Your task to perform on an android device: check the backup settings in the google photos Image 0: 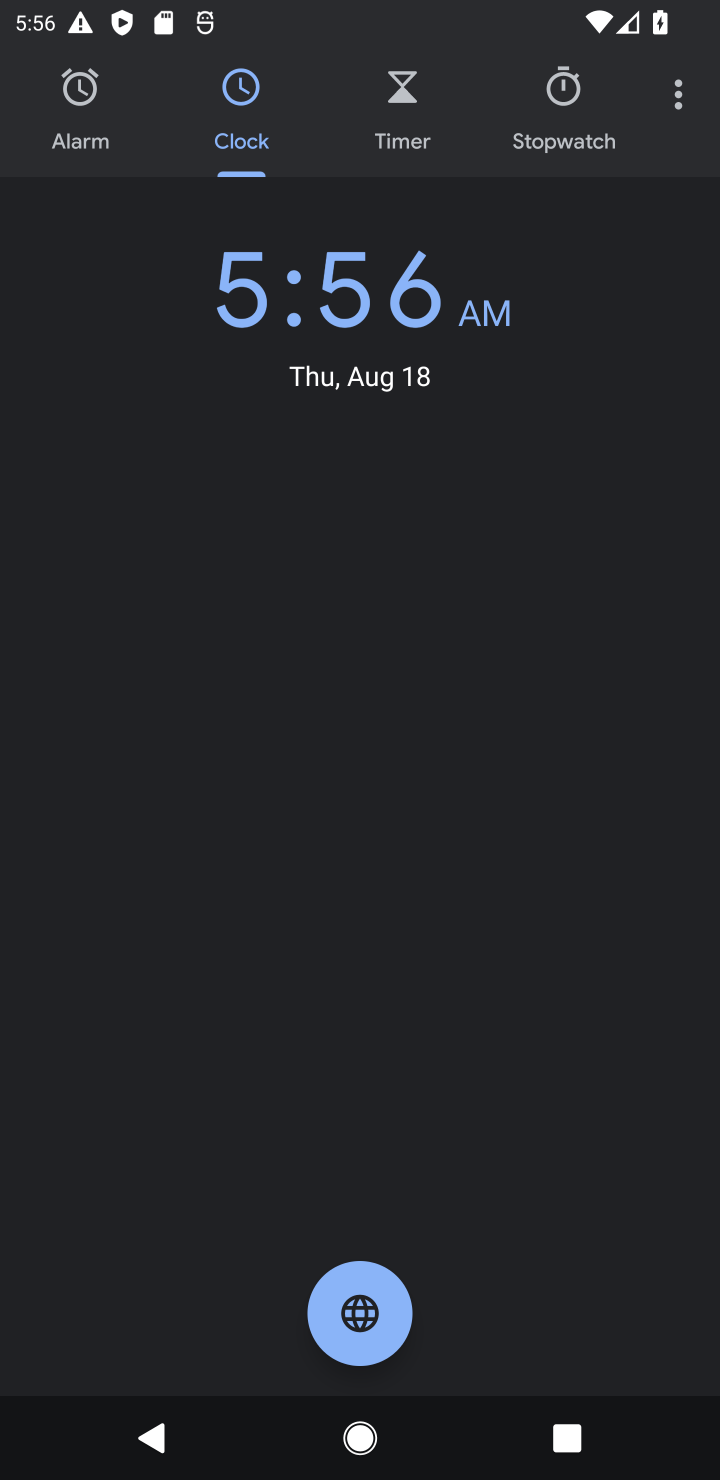
Step 0: press home button
Your task to perform on an android device: check the backup settings in the google photos Image 1: 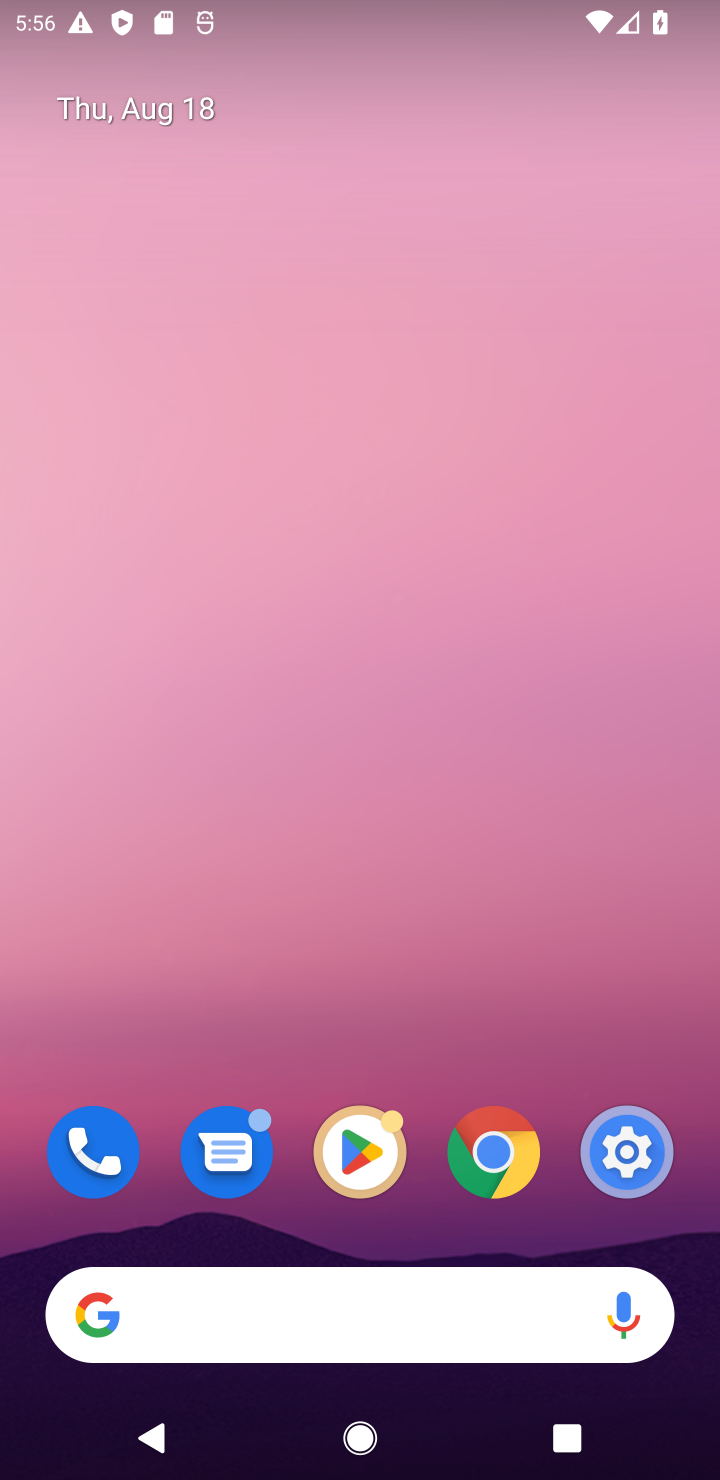
Step 1: drag from (575, 763) to (538, 49)
Your task to perform on an android device: check the backup settings in the google photos Image 2: 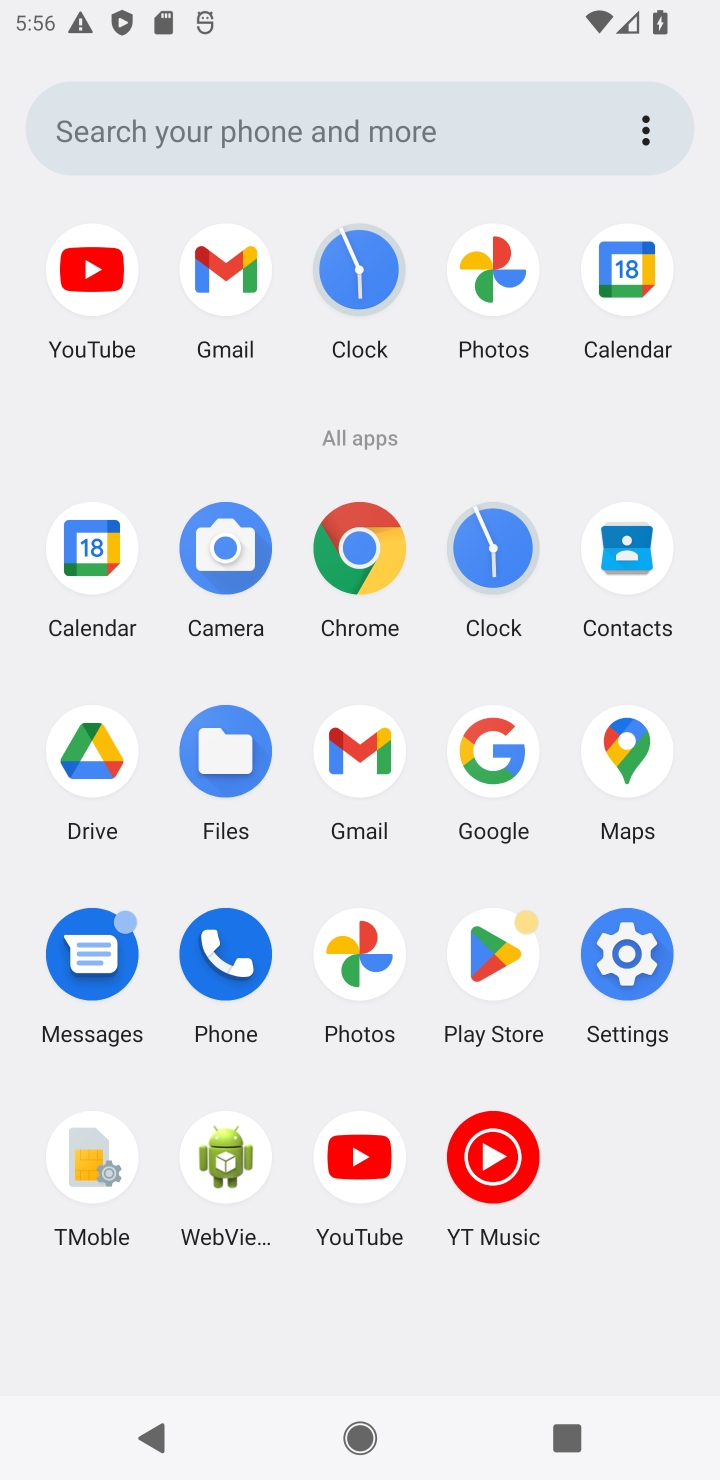
Step 2: click (365, 955)
Your task to perform on an android device: check the backup settings in the google photos Image 3: 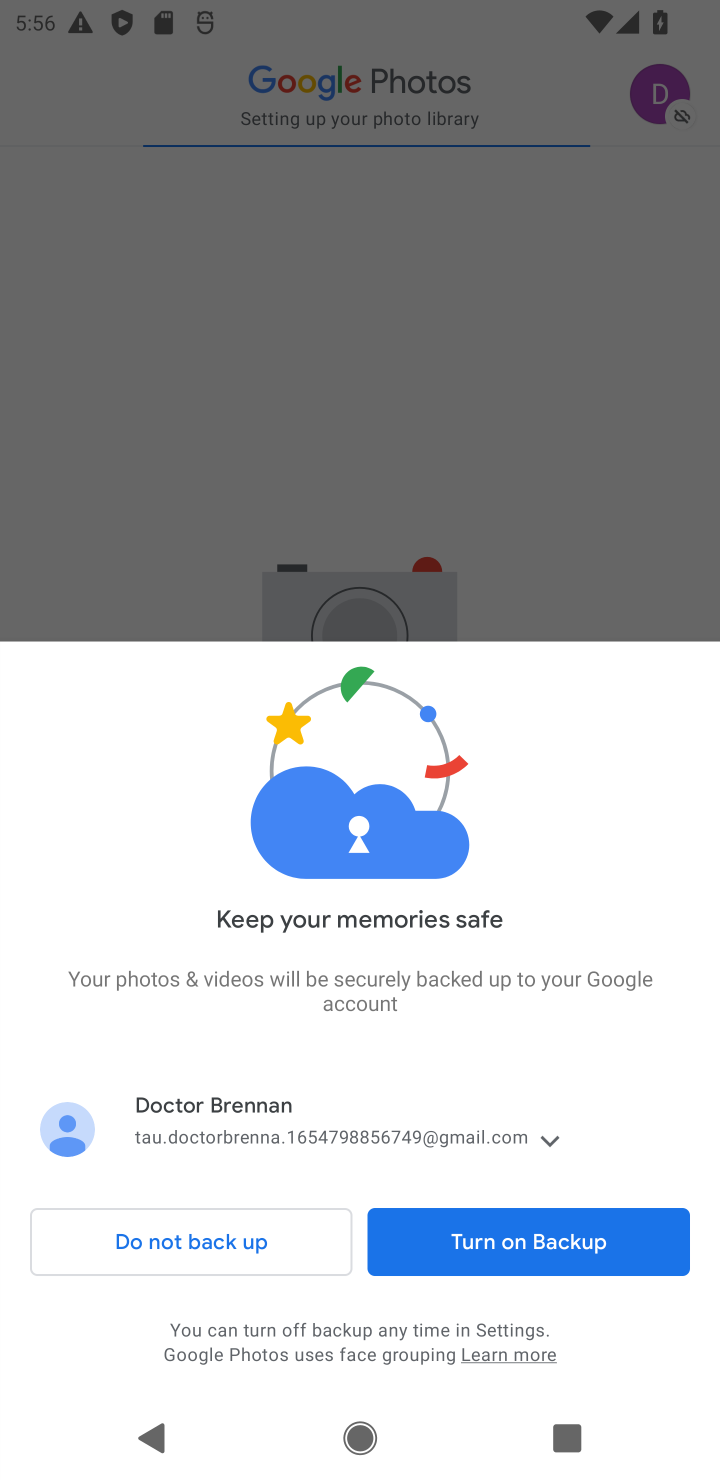
Step 3: click (176, 1239)
Your task to perform on an android device: check the backup settings in the google photos Image 4: 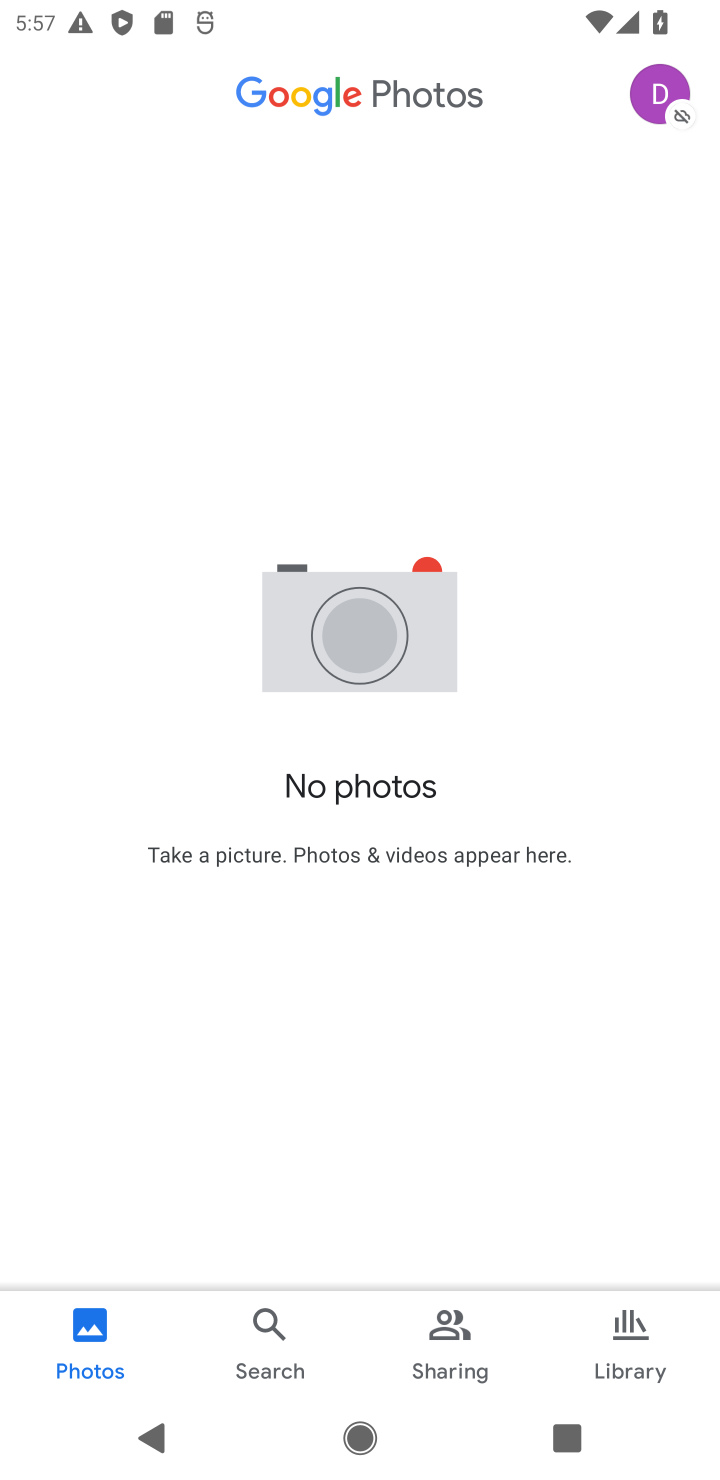
Step 4: press home button
Your task to perform on an android device: check the backup settings in the google photos Image 5: 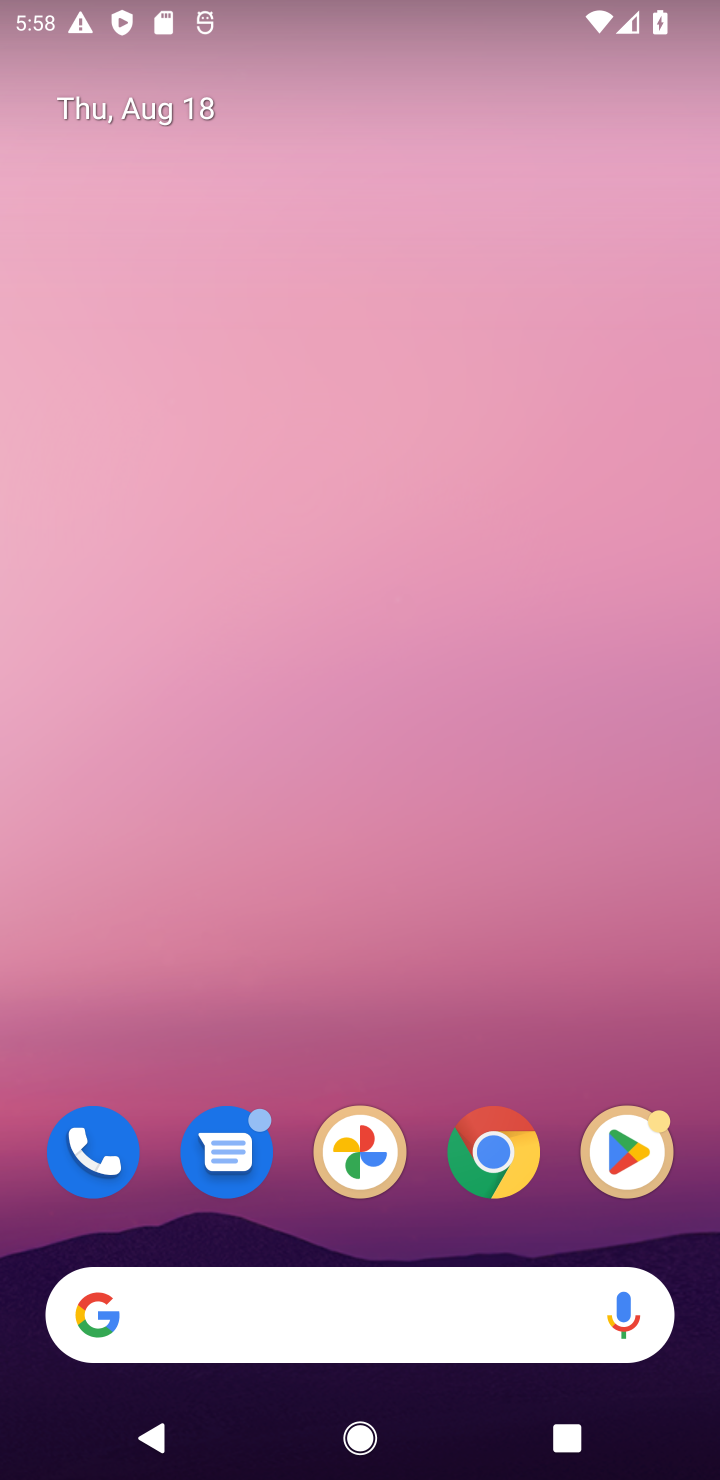
Step 5: drag from (467, 1038) to (480, 112)
Your task to perform on an android device: check the backup settings in the google photos Image 6: 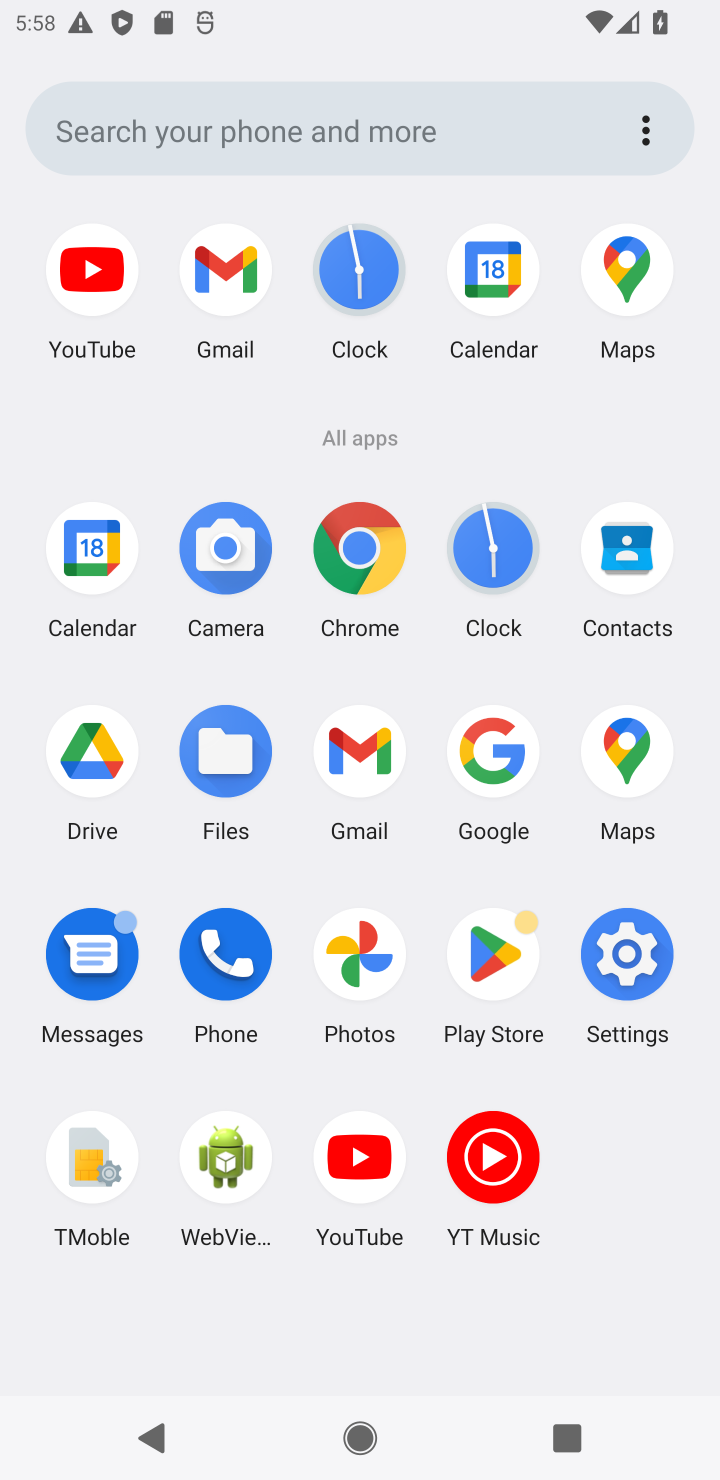
Step 6: click (347, 935)
Your task to perform on an android device: check the backup settings in the google photos Image 7: 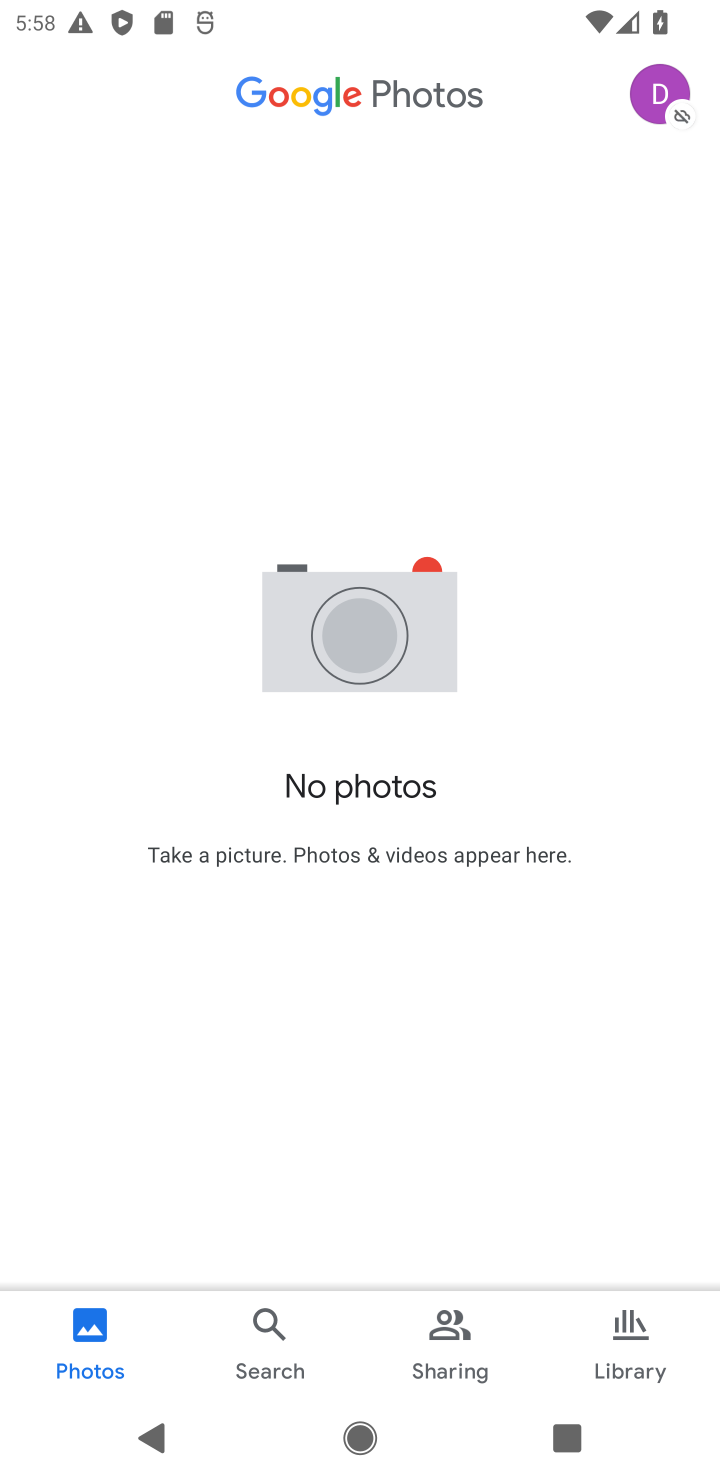
Step 7: click (654, 88)
Your task to perform on an android device: check the backup settings in the google photos Image 8: 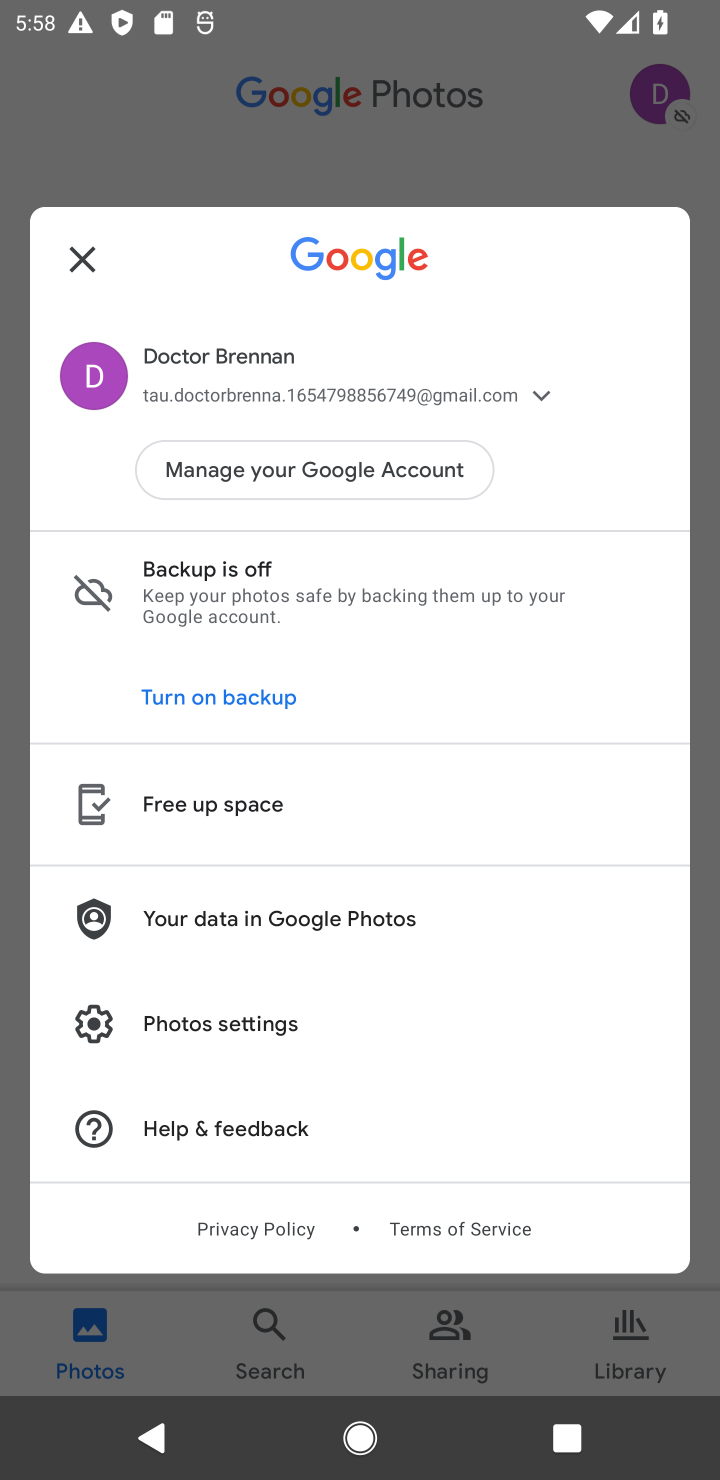
Step 8: click (152, 1020)
Your task to perform on an android device: check the backup settings in the google photos Image 9: 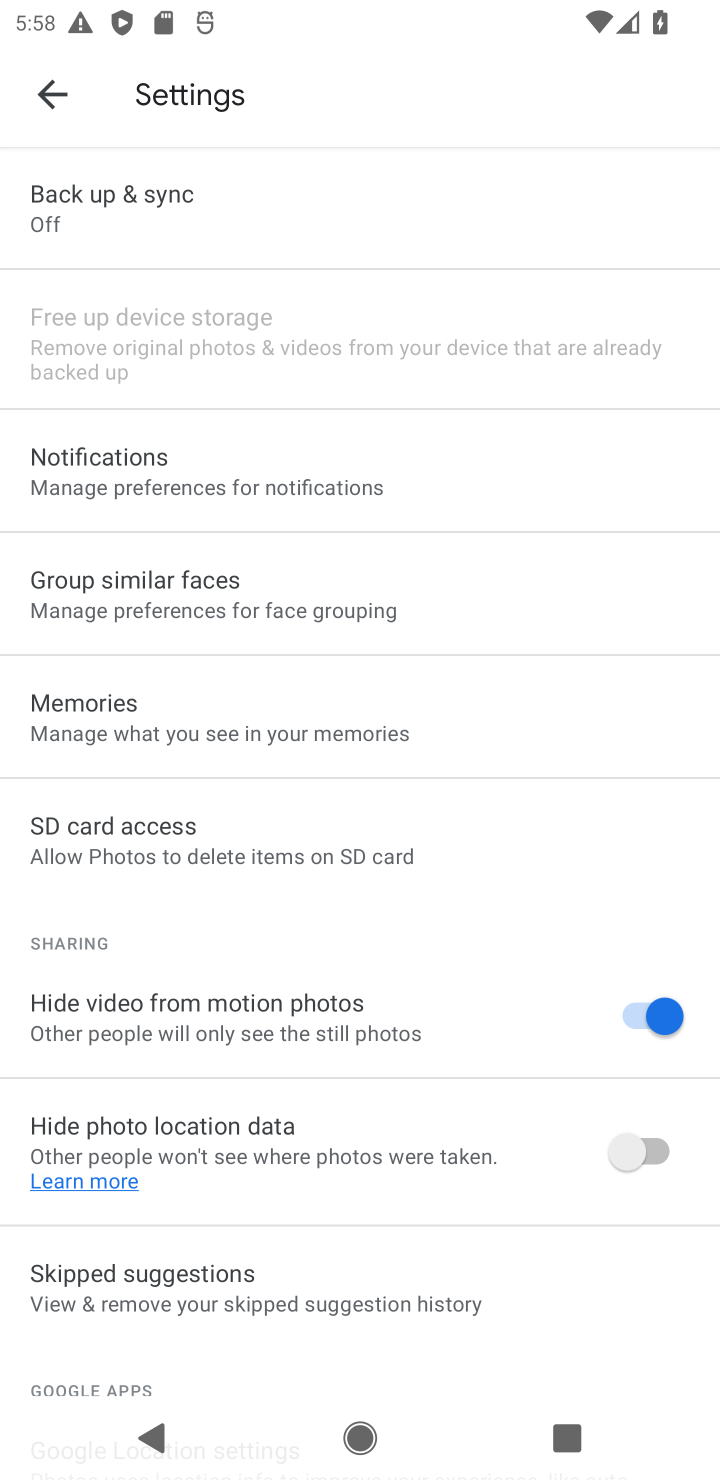
Step 9: click (74, 218)
Your task to perform on an android device: check the backup settings in the google photos Image 10: 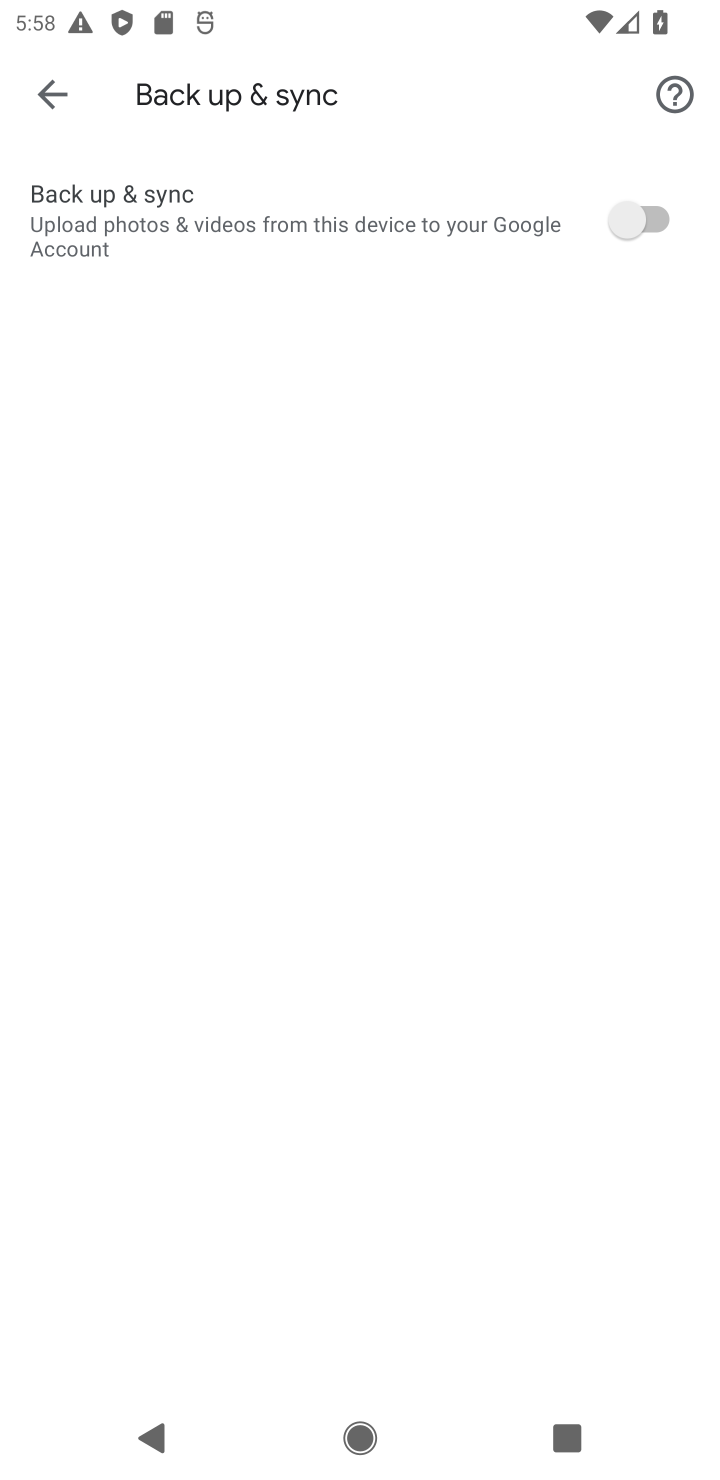
Step 10: click (457, 228)
Your task to perform on an android device: check the backup settings in the google photos Image 11: 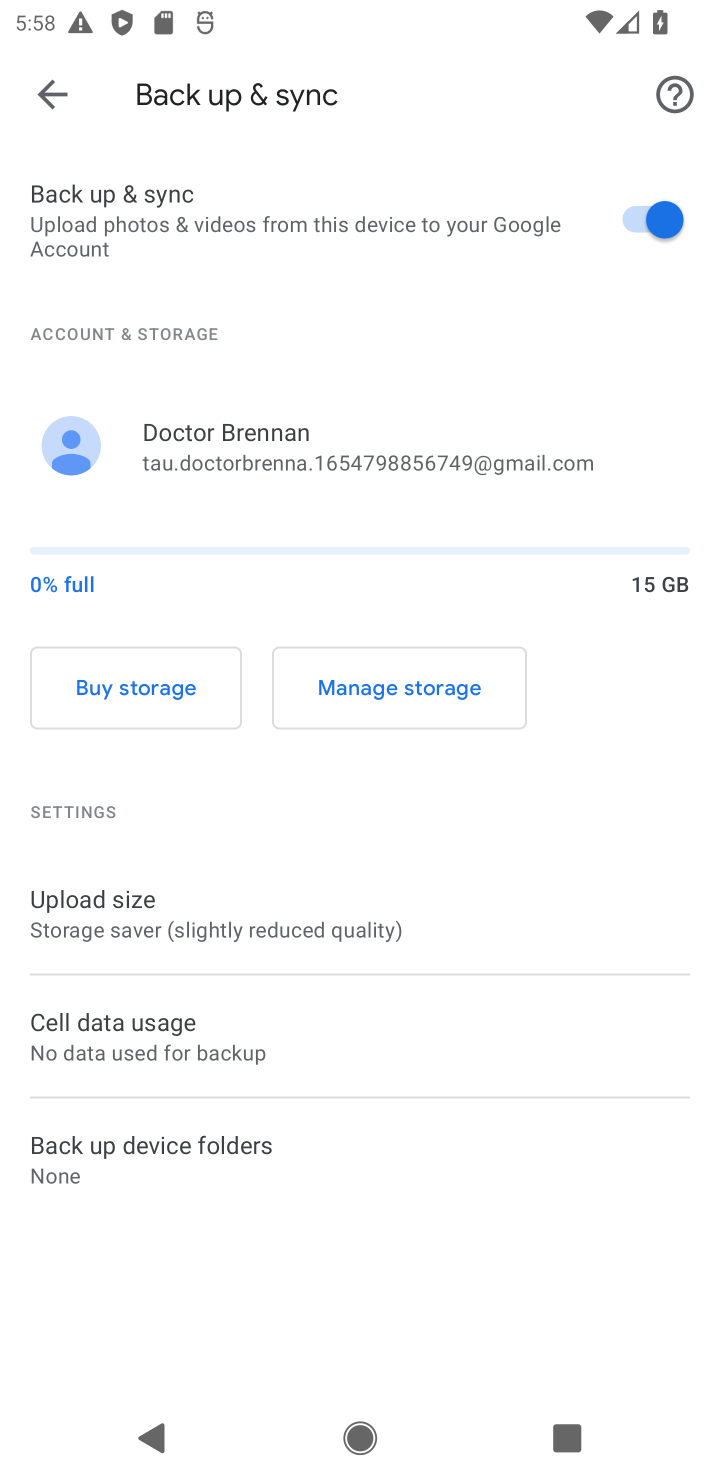
Step 11: task complete